Your task to perform on an android device: Search for pizza restaurants on Maps Image 0: 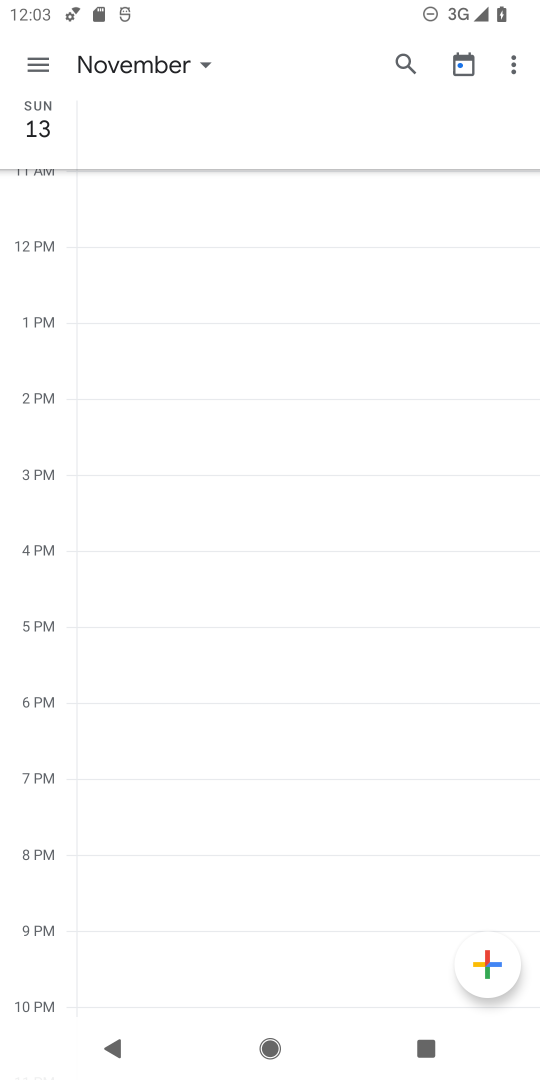
Step 0: press home button
Your task to perform on an android device: Search for pizza restaurants on Maps Image 1: 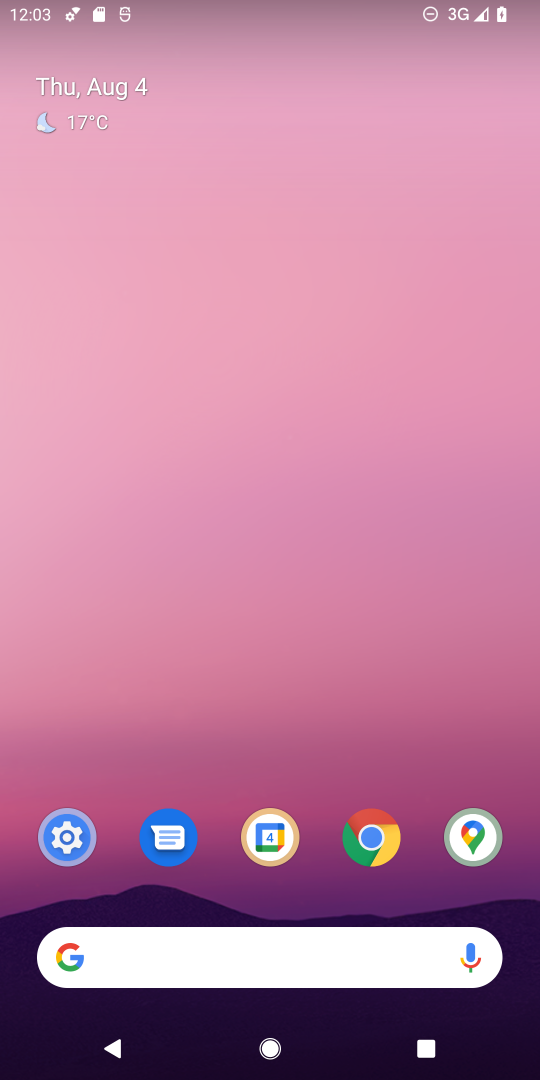
Step 1: drag from (429, 618) to (408, 76)
Your task to perform on an android device: Search for pizza restaurants on Maps Image 2: 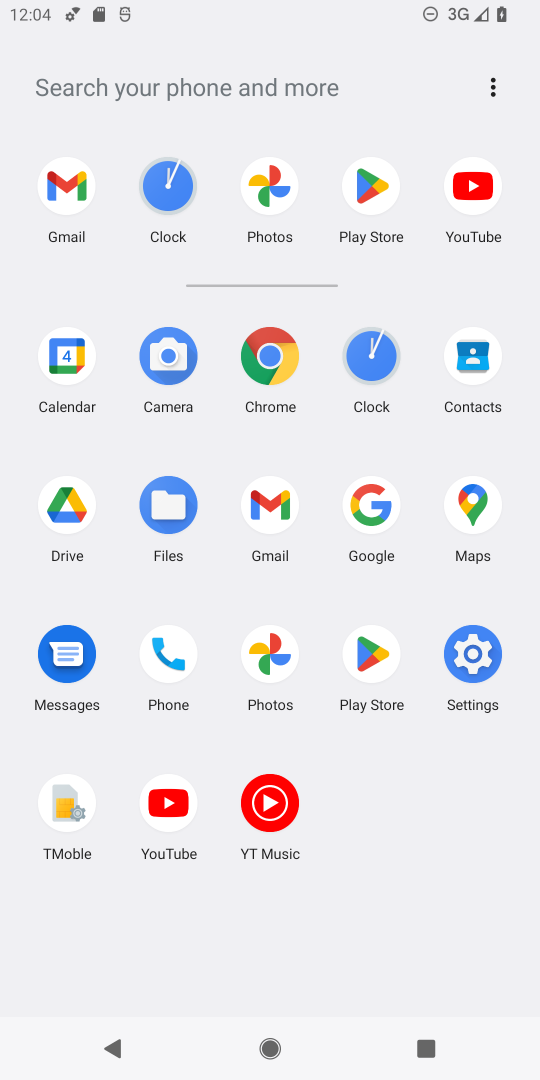
Step 2: click (483, 518)
Your task to perform on an android device: Search for pizza restaurants on Maps Image 3: 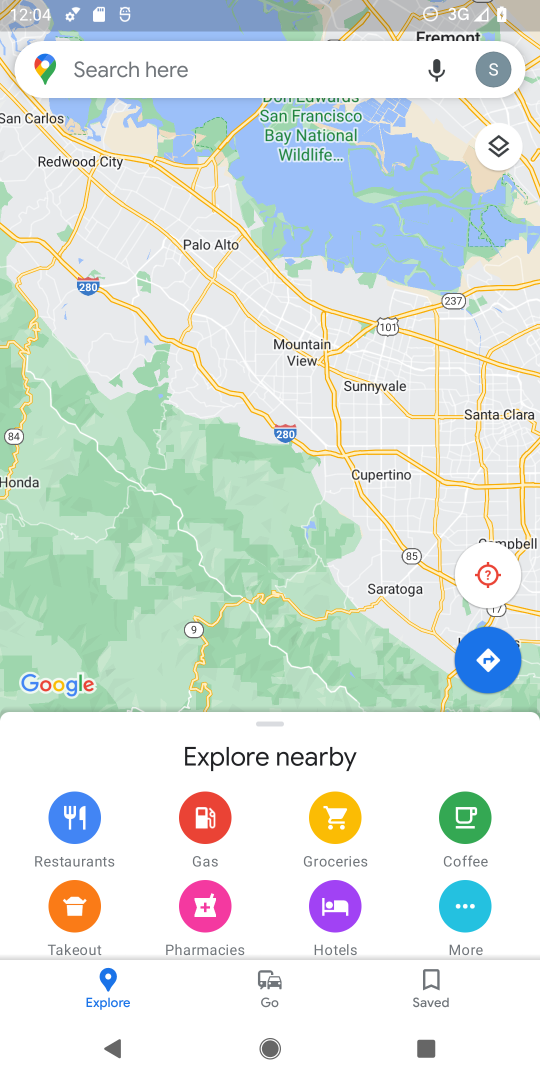
Step 3: click (190, 65)
Your task to perform on an android device: Search for pizza restaurants on Maps Image 4: 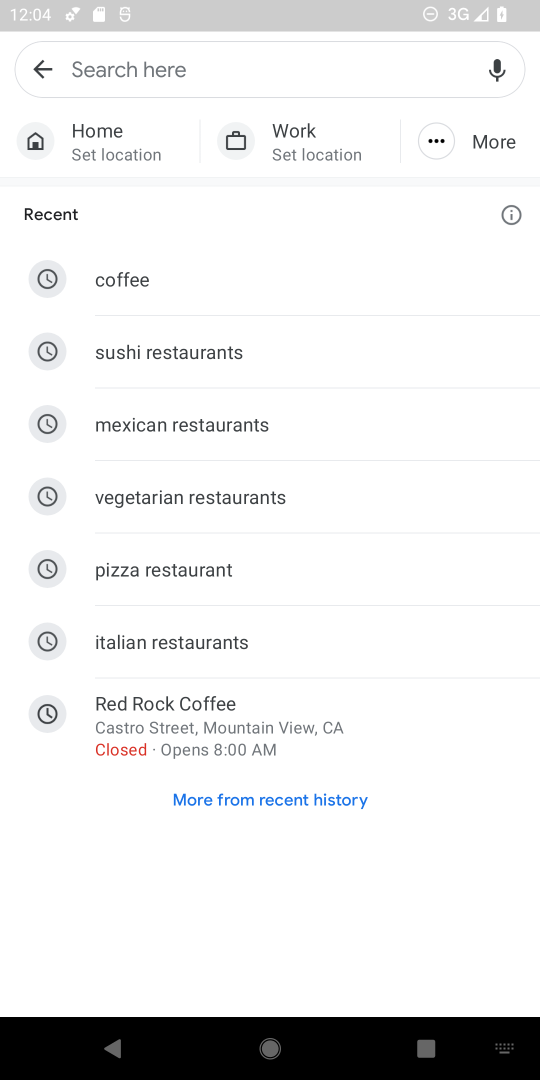
Step 4: click (148, 566)
Your task to perform on an android device: Search for pizza restaurants on Maps Image 5: 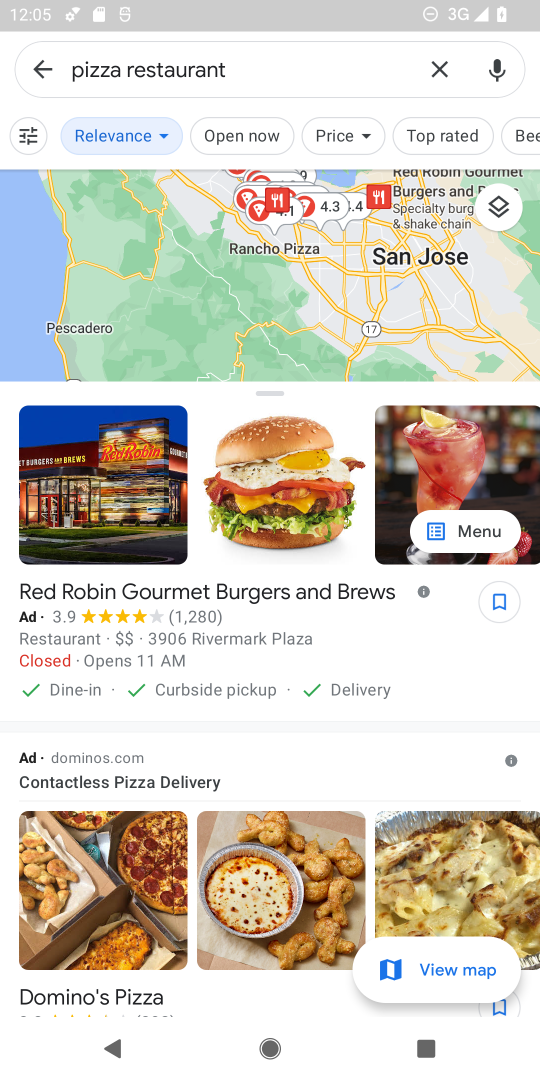
Step 5: task complete